Your task to perform on an android device: Go to Wikipedia Image 0: 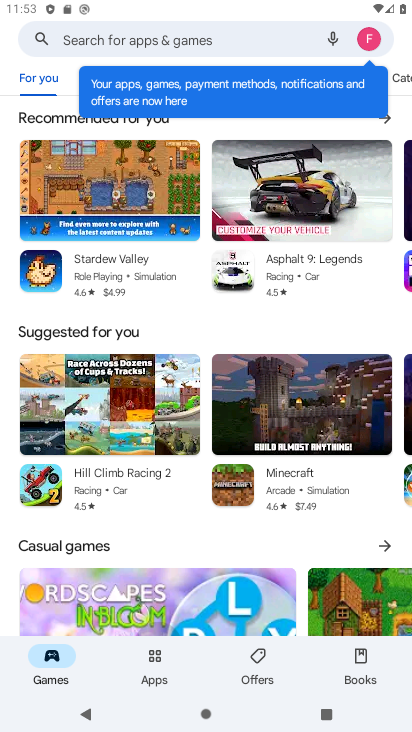
Step 0: press home button
Your task to perform on an android device: Go to Wikipedia Image 1: 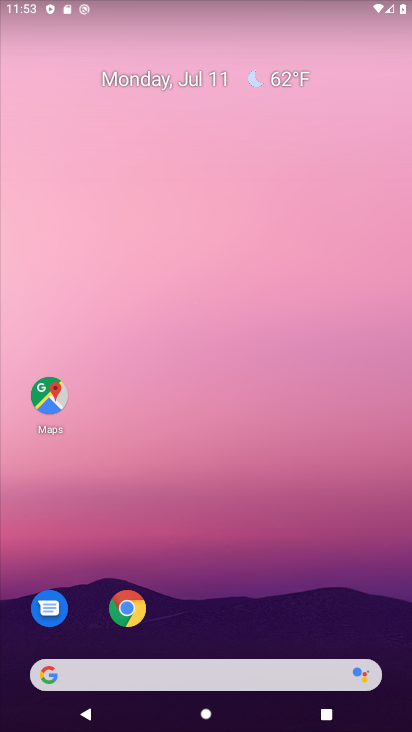
Step 1: drag from (326, 490) to (192, 43)
Your task to perform on an android device: Go to Wikipedia Image 2: 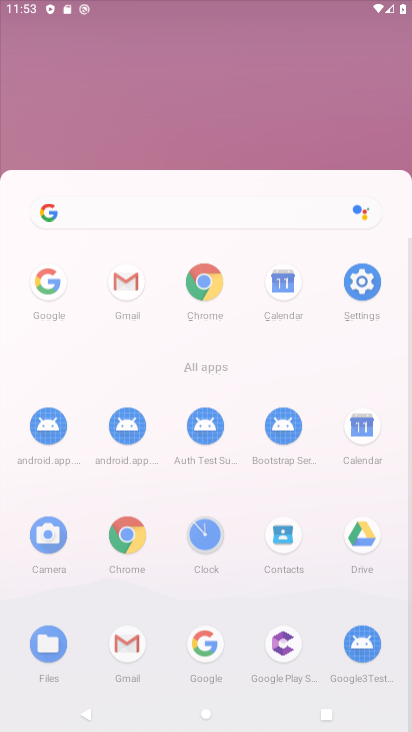
Step 2: drag from (268, 257) to (242, 5)
Your task to perform on an android device: Go to Wikipedia Image 3: 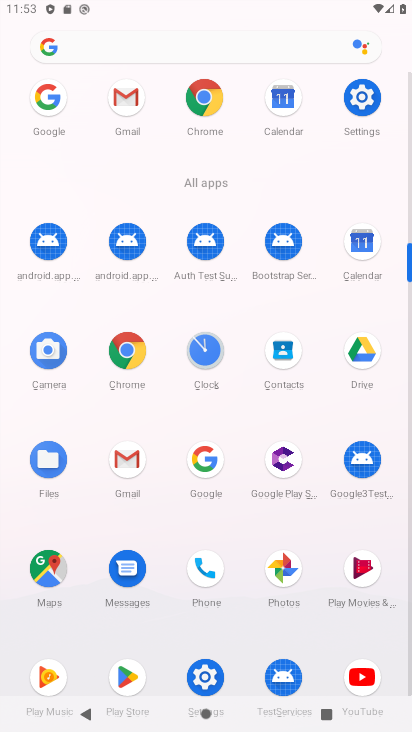
Step 3: click (214, 100)
Your task to perform on an android device: Go to Wikipedia Image 4: 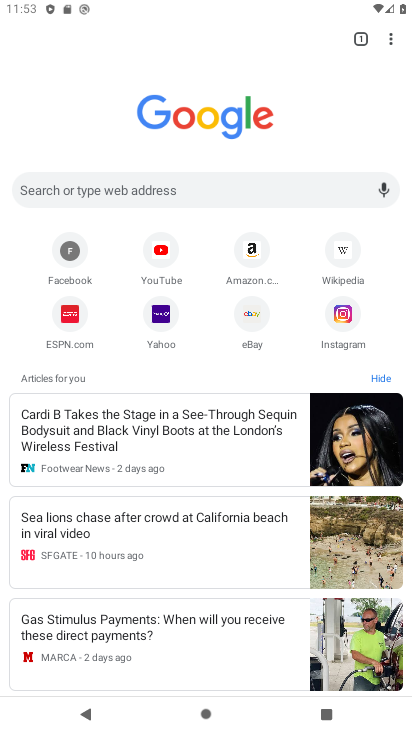
Step 4: click (338, 261)
Your task to perform on an android device: Go to Wikipedia Image 5: 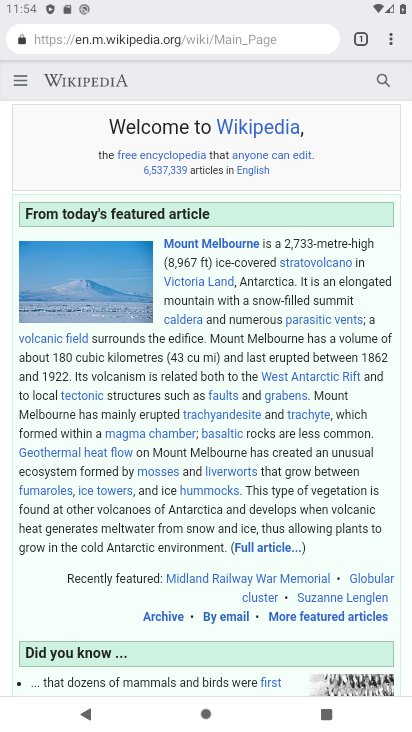
Step 5: task complete